Your task to perform on an android device: Go to Google Image 0: 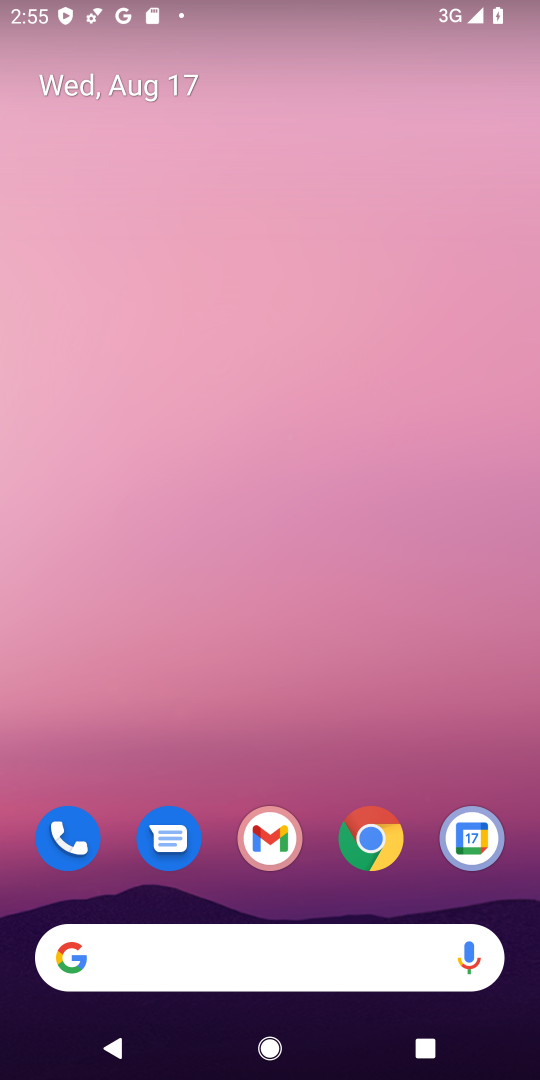
Step 0: drag from (261, 888) to (486, 3)
Your task to perform on an android device: Go to Google Image 1: 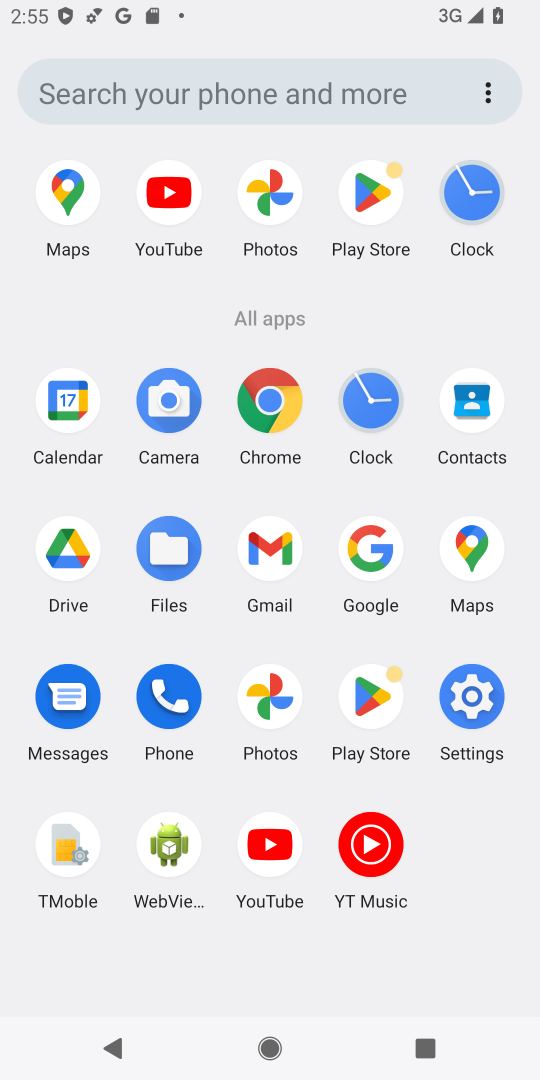
Step 1: click (379, 557)
Your task to perform on an android device: Go to Google Image 2: 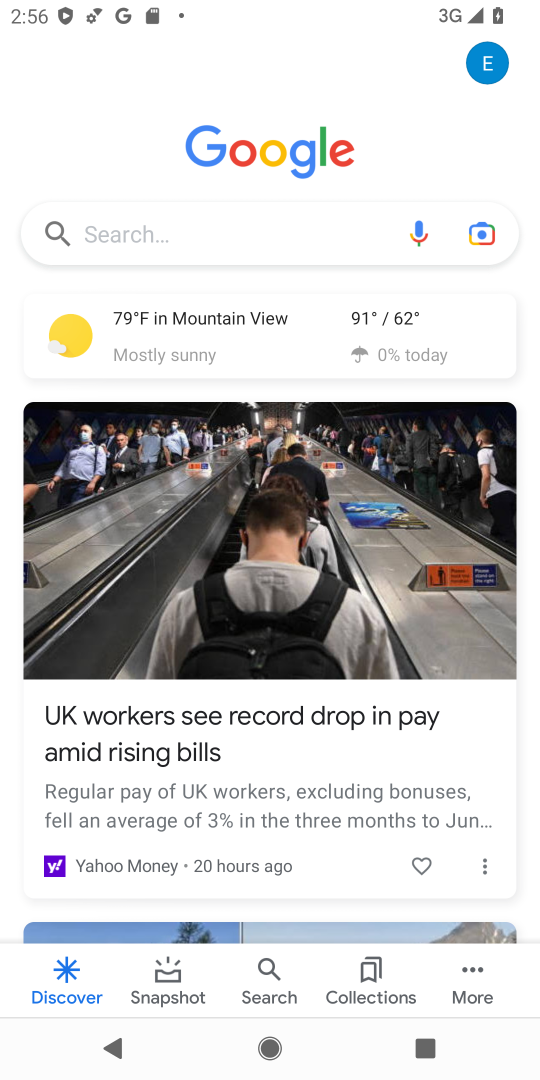
Step 2: task complete